Your task to perform on an android device: Open notification settings Image 0: 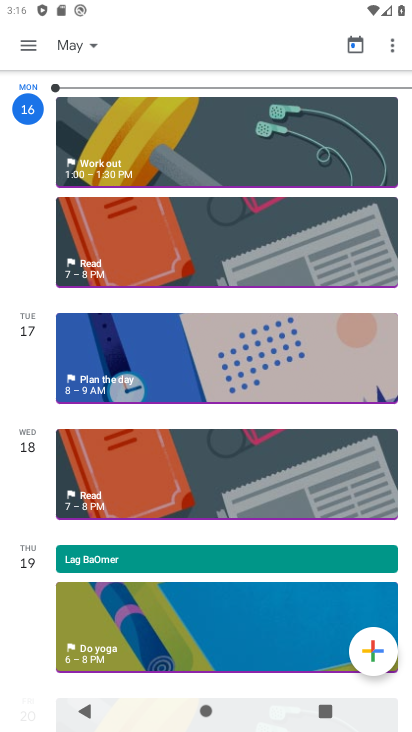
Step 0: press home button
Your task to perform on an android device: Open notification settings Image 1: 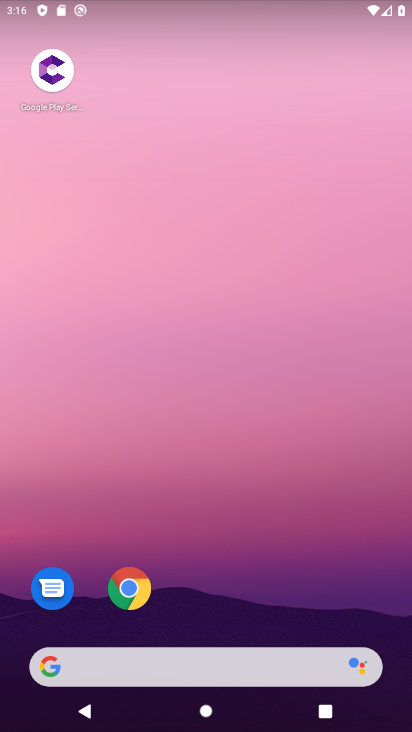
Step 1: drag from (305, 550) to (298, 7)
Your task to perform on an android device: Open notification settings Image 2: 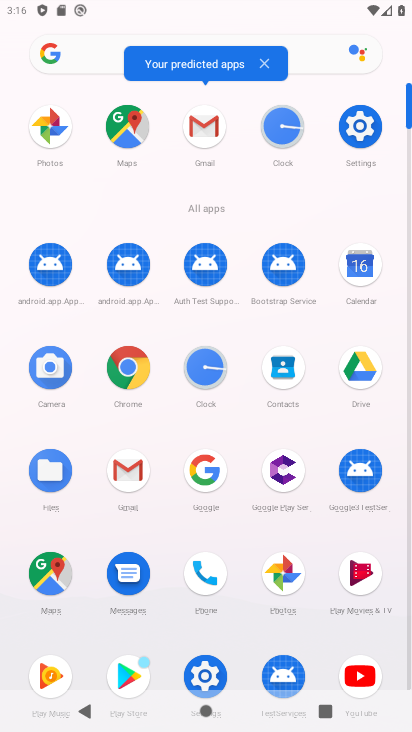
Step 2: click (365, 134)
Your task to perform on an android device: Open notification settings Image 3: 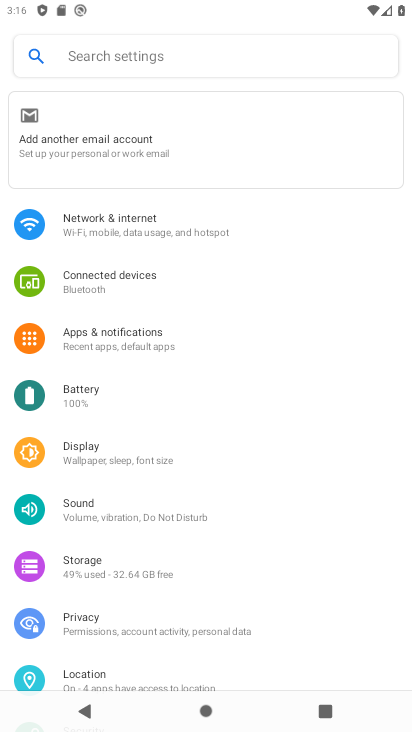
Step 3: click (124, 343)
Your task to perform on an android device: Open notification settings Image 4: 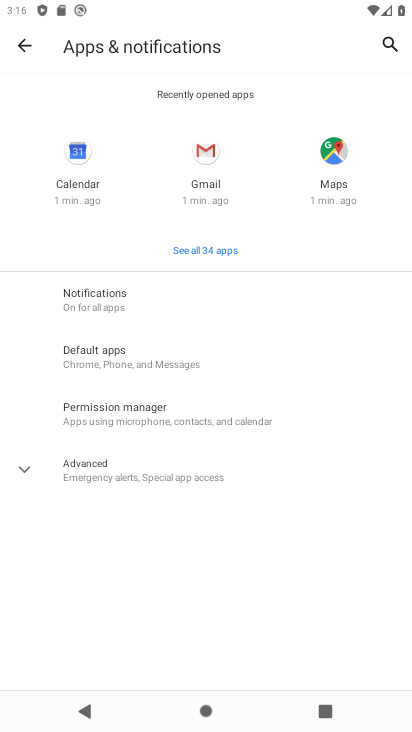
Step 4: task complete